Your task to perform on an android device: find which apps use the phone's location Image 0: 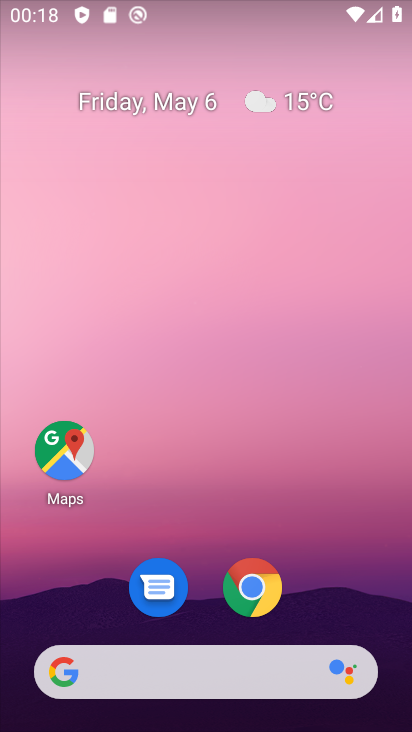
Step 0: drag from (384, 632) to (386, 257)
Your task to perform on an android device: find which apps use the phone's location Image 1: 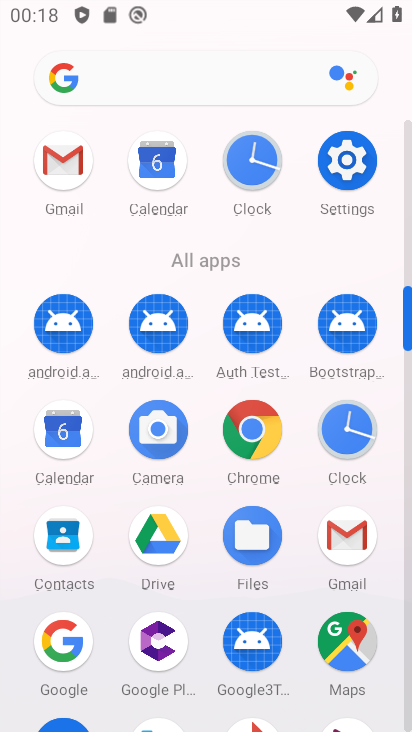
Step 1: click (359, 169)
Your task to perform on an android device: find which apps use the phone's location Image 2: 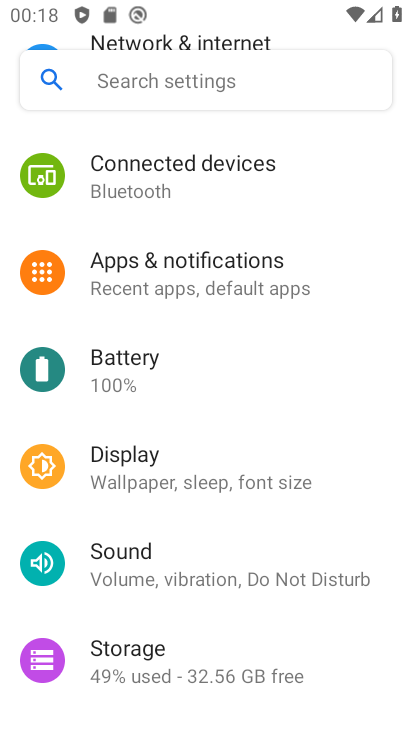
Step 2: drag from (253, 671) to (273, 315)
Your task to perform on an android device: find which apps use the phone's location Image 3: 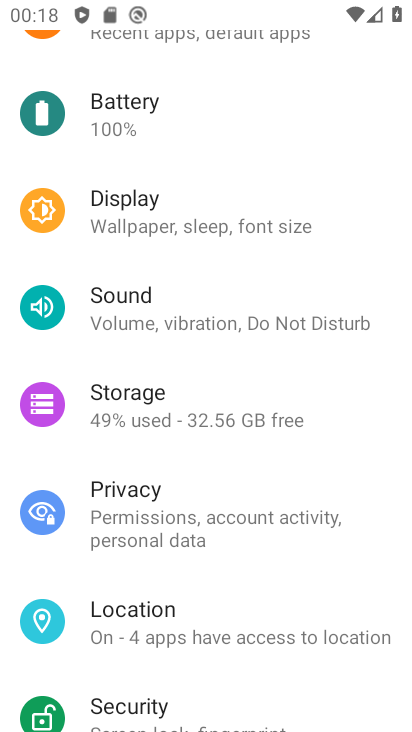
Step 3: click (143, 605)
Your task to perform on an android device: find which apps use the phone's location Image 4: 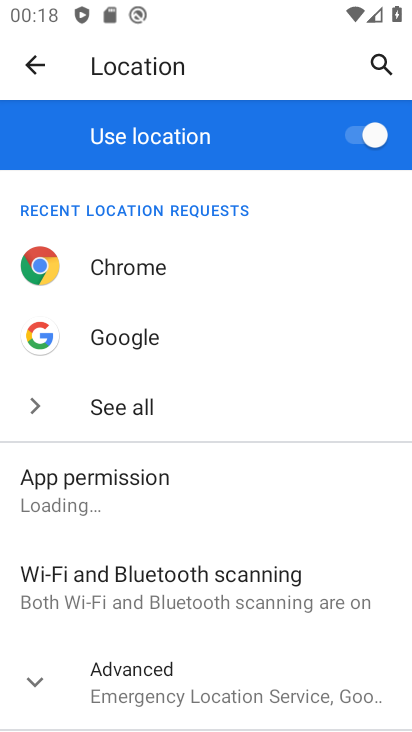
Step 4: click (68, 476)
Your task to perform on an android device: find which apps use the phone's location Image 5: 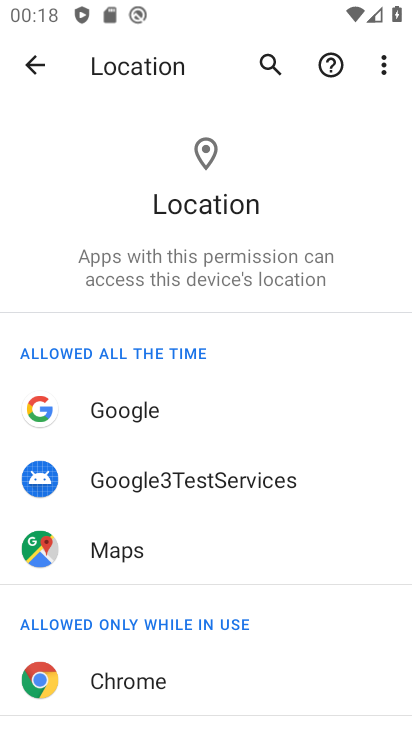
Step 5: task complete